Your task to perform on an android device: turn off translation in the chrome app Image 0: 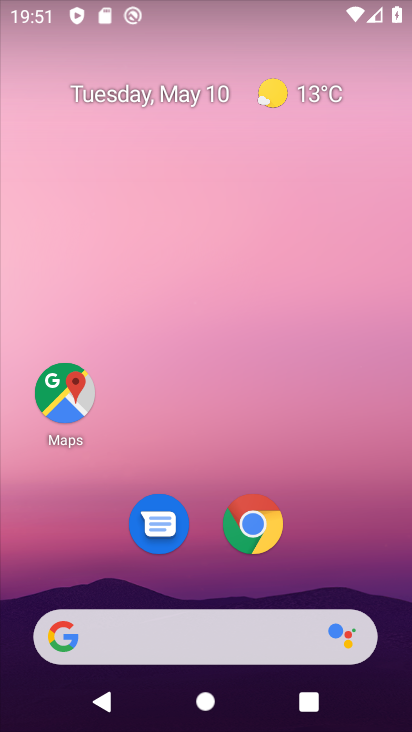
Step 0: click (264, 525)
Your task to perform on an android device: turn off translation in the chrome app Image 1: 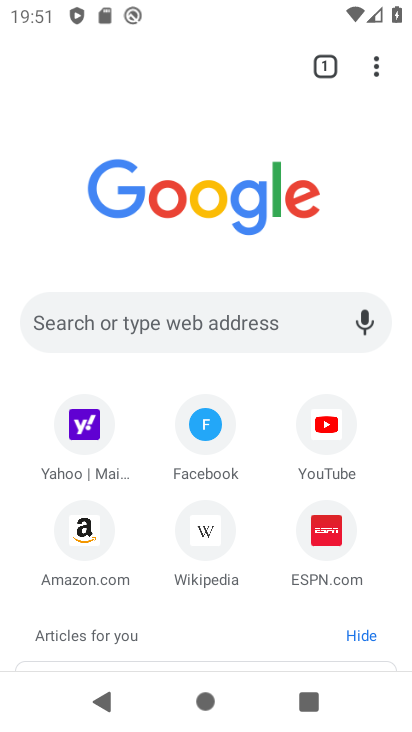
Step 1: click (375, 64)
Your task to perform on an android device: turn off translation in the chrome app Image 2: 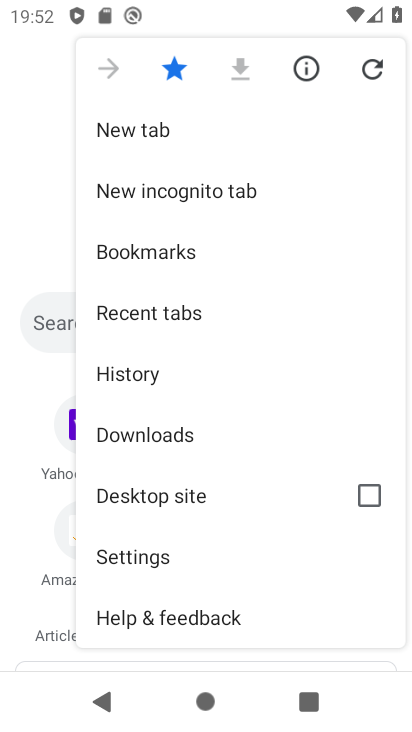
Step 2: click (155, 557)
Your task to perform on an android device: turn off translation in the chrome app Image 3: 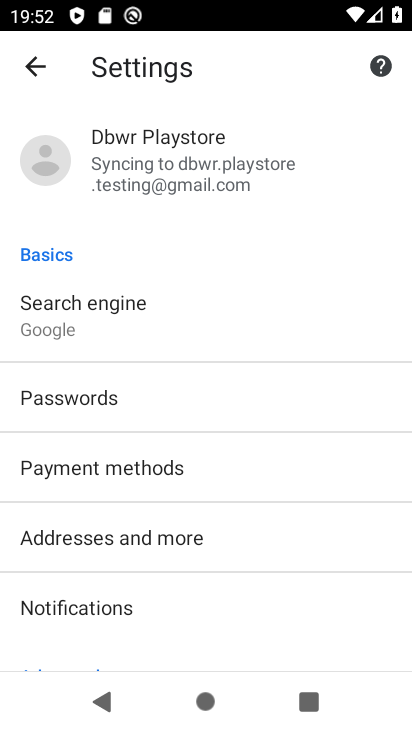
Step 3: drag from (155, 557) to (219, 199)
Your task to perform on an android device: turn off translation in the chrome app Image 4: 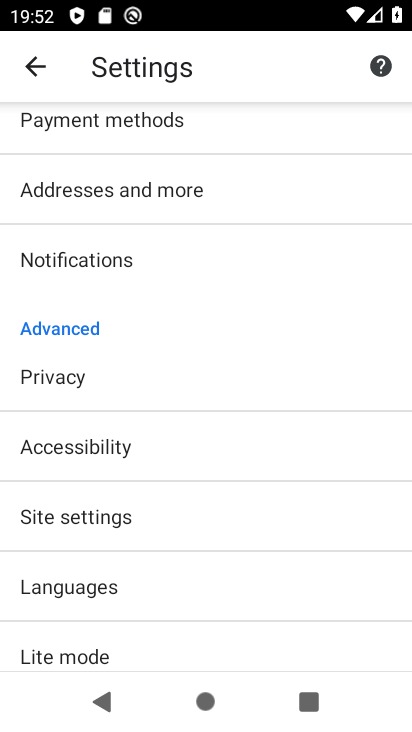
Step 4: click (215, 589)
Your task to perform on an android device: turn off translation in the chrome app Image 5: 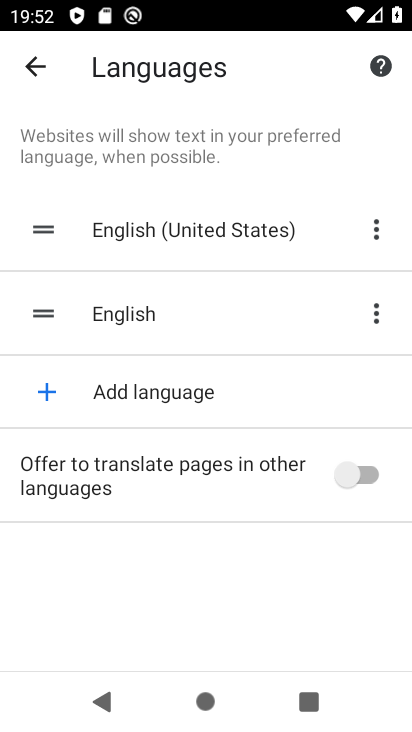
Step 5: task complete